Your task to perform on an android device: turn pop-ups on in chrome Image 0: 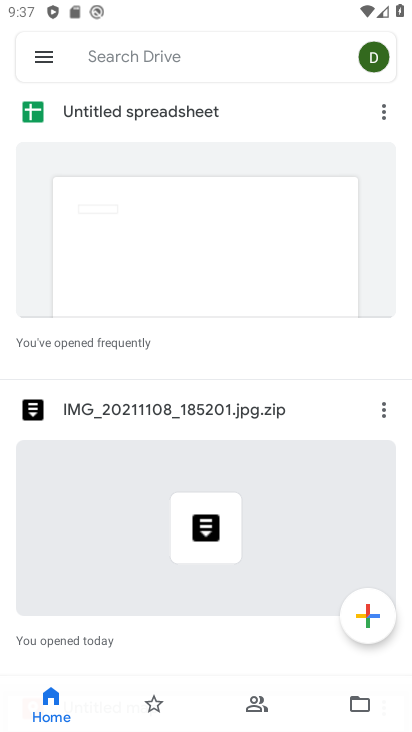
Step 0: press home button
Your task to perform on an android device: turn pop-ups on in chrome Image 1: 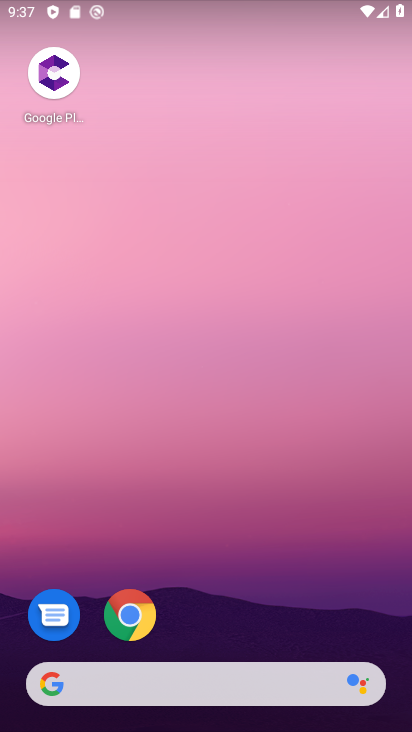
Step 1: click (131, 613)
Your task to perform on an android device: turn pop-ups on in chrome Image 2: 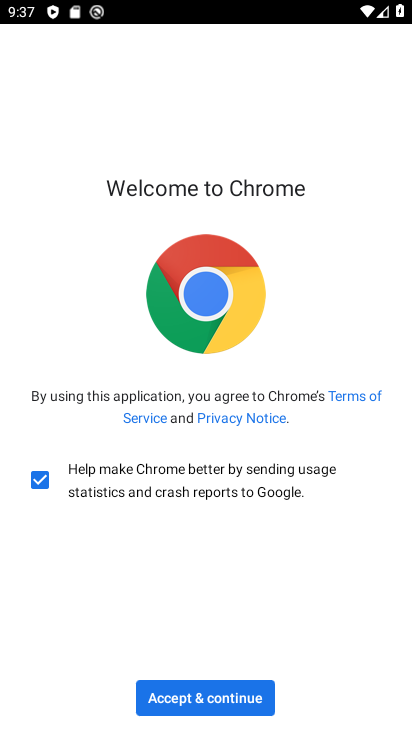
Step 2: click (195, 699)
Your task to perform on an android device: turn pop-ups on in chrome Image 3: 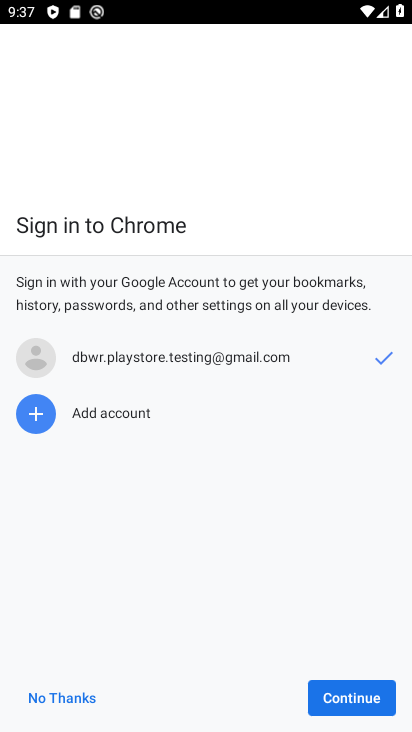
Step 3: click (353, 691)
Your task to perform on an android device: turn pop-ups on in chrome Image 4: 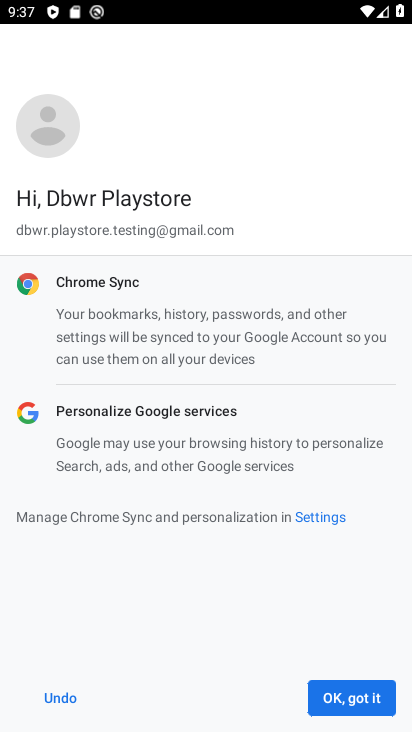
Step 4: click (352, 691)
Your task to perform on an android device: turn pop-ups on in chrome Image 5: 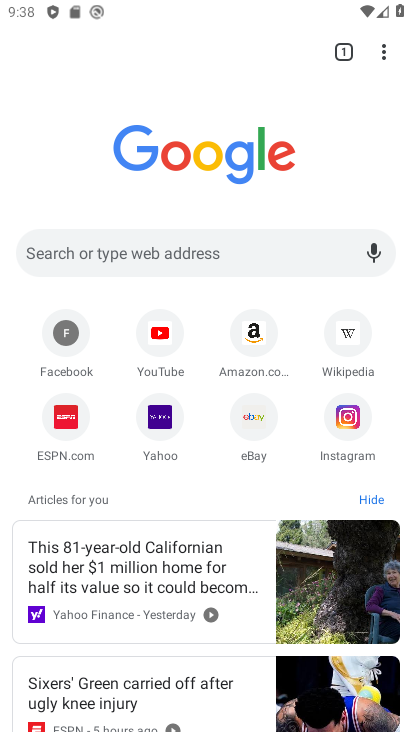
Step 5: click (383, 49)
Your task to perform on an android device: turn pop-ups on in chrome Image 6: 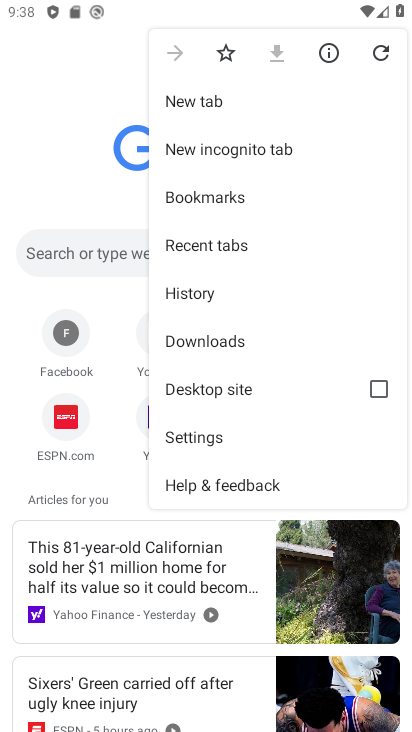
Step 6: click (200, 434)
Your task to perform on an android device: turn pop-ups on in chrome Image 7: 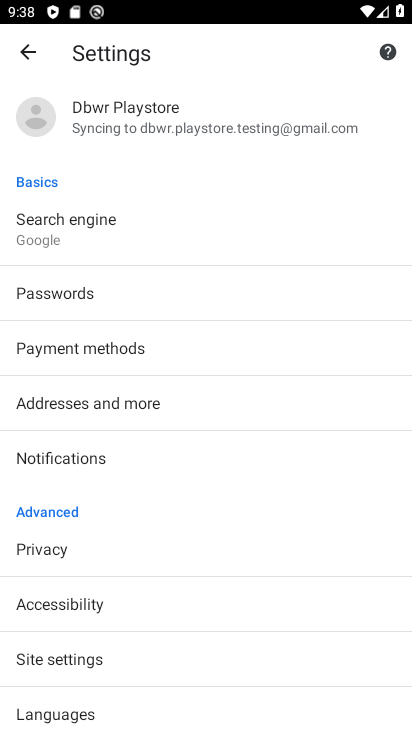
Step 7: drag from (171, 682) to (174, 456)
Your task to perform on an android device: turn pop-ups on in chrome Image 8: 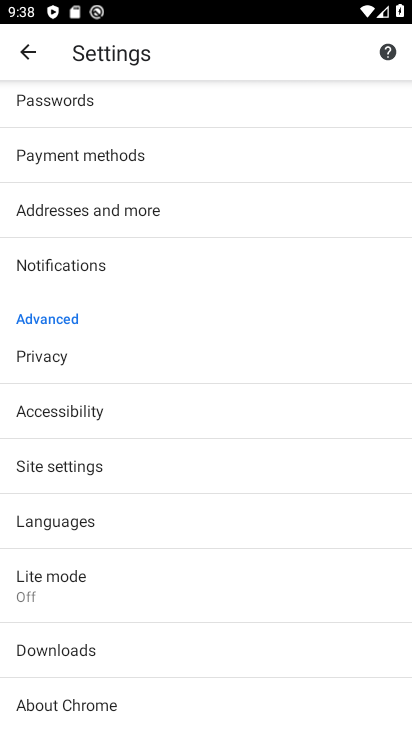
Step 8: click (74, 465)
Your task to perform on an android device: turn pop-ups on in chrome Image 9: 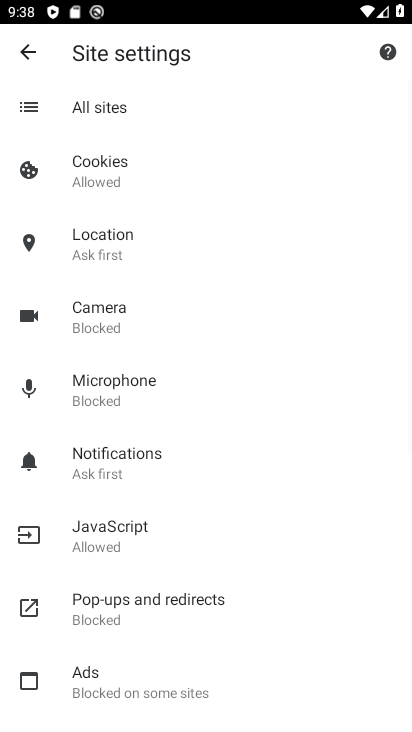
Step 9: click (133, 601)
Your task to perform on an android device: turn pop-ups on in chrome Image 10: 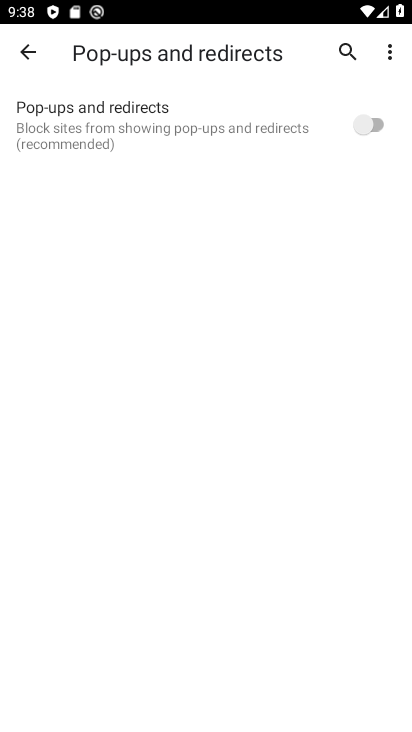
Step 10: click (382, 120)
Your task to perform on an android device: turn pop-ups on in chrome Image 11: 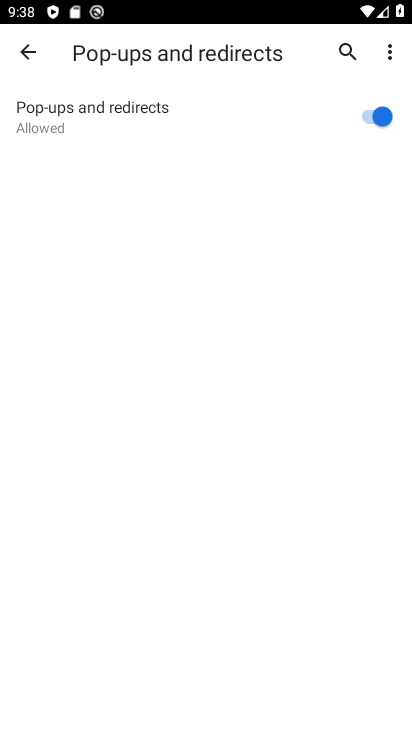
Step 11: task complete